Your task to perform on an android device: Check the weather Image 0: 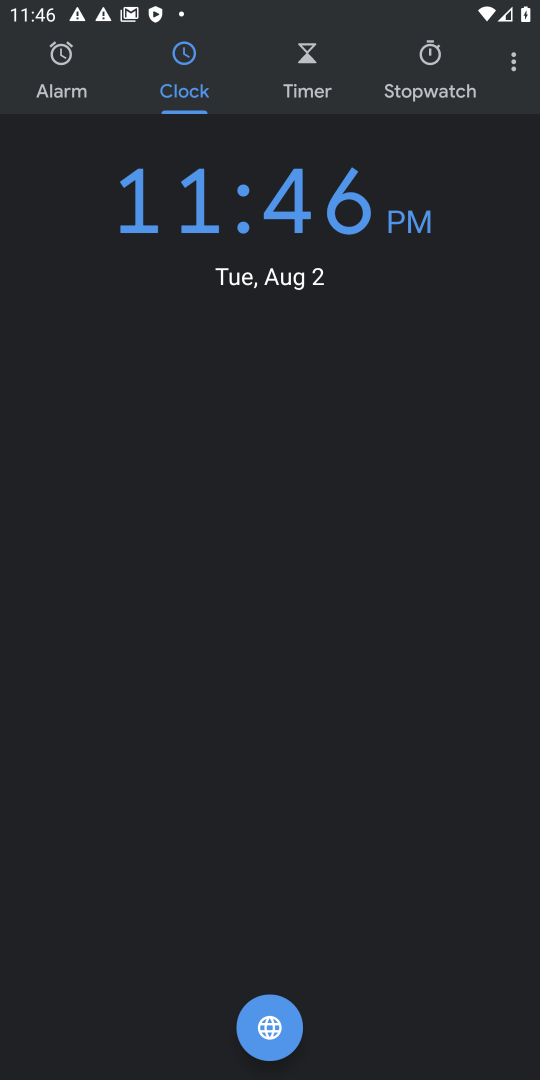
Step 0: press home button
Your task to perform on an android device: Check the weather Image 1: 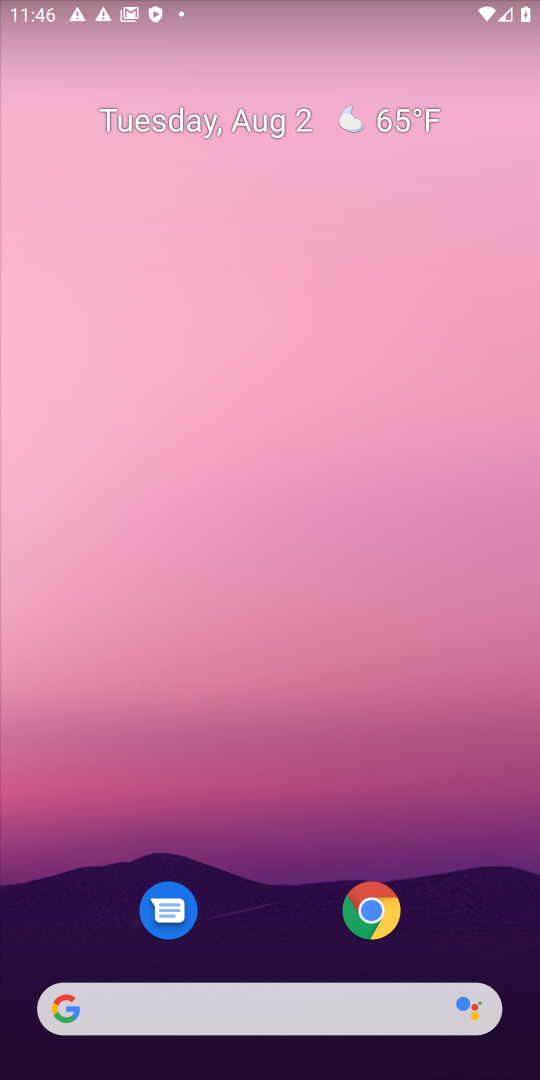
Step 1: click (420, 126)
Your task to perform on an android device: Check the weather Image 2: 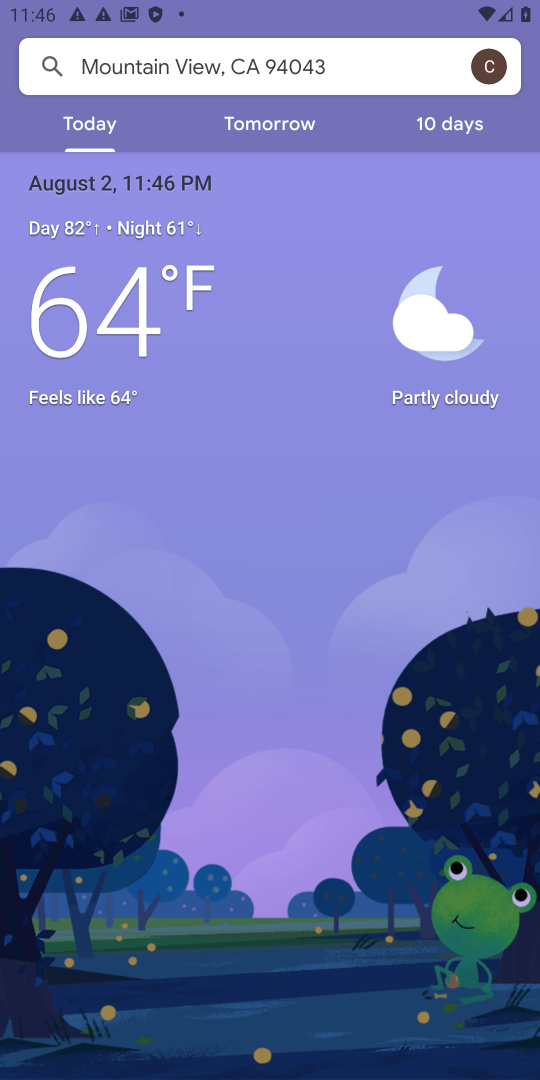
Step 2: task complete